Your task to perform on an android device: toggle priority inbox in the gmail app Image 0: 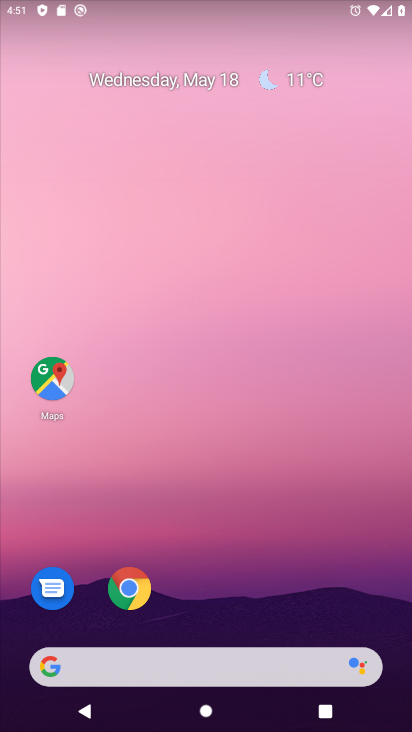
Step 0: drag from (264, 421) to (345, 62)
Your task to perform on an android device: toggle priority inbox in the gmail app Image 1: 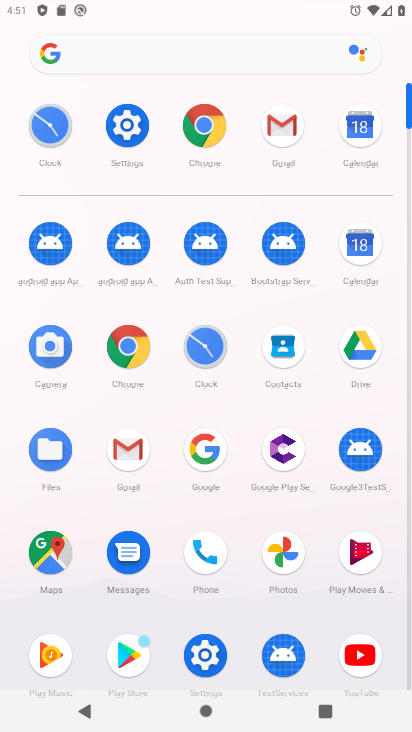
Step 1: click (286, 131)
Your task to perform on an android device: toggle priority inbox in the gmail app Image 2: 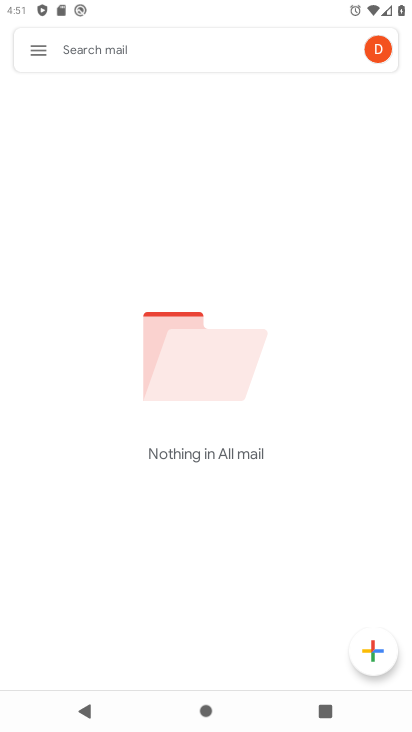
Step 2: click (34, 54)
Your task to perform on an android device: toggle priority inbox in the gmail app Image 3: 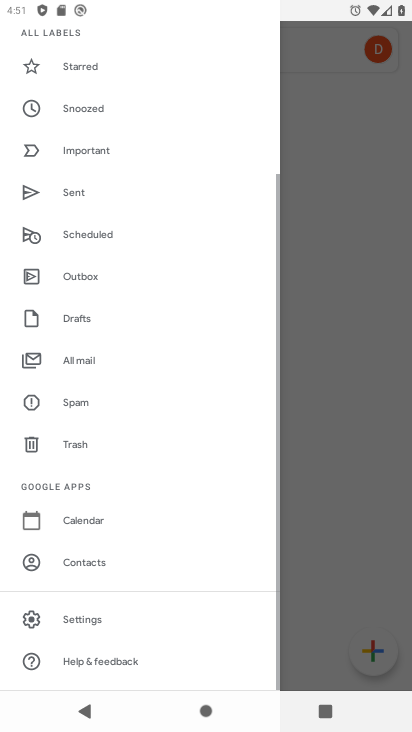
Step 3: click (100, 624)
Your task to perform on an android device: toggle priority inbox in the gmail app Image 4: 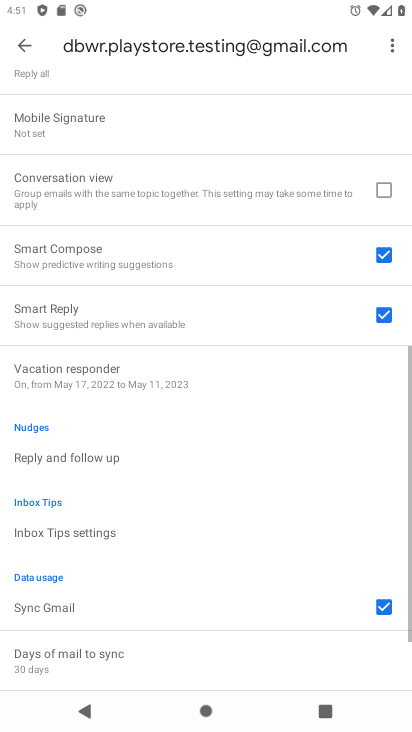
Step 4: drag from (204, 117) to (213, 628)
Your task to perform on an android device: toggle priority inbox in the gmail app Image 5: 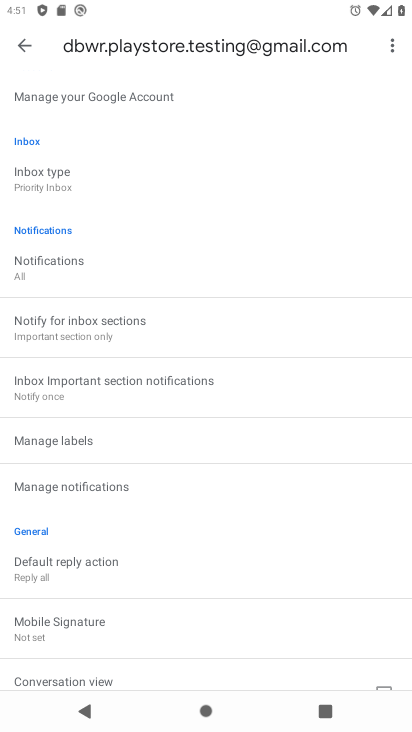
Step 5: drag from (197, 178) to (222, 478)
Your task to perform on an android device: toggle priority inbox in the gmail app Image 6: 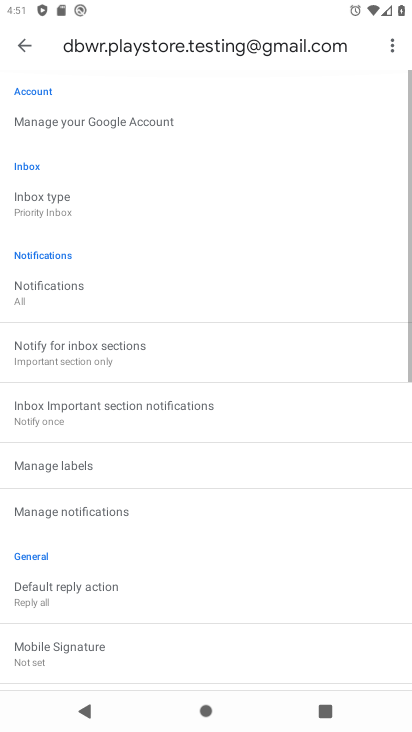
Step 6: click (58, 194)
Your task to perform on an android device: toggle priority inbox in the gmail app Image 7: 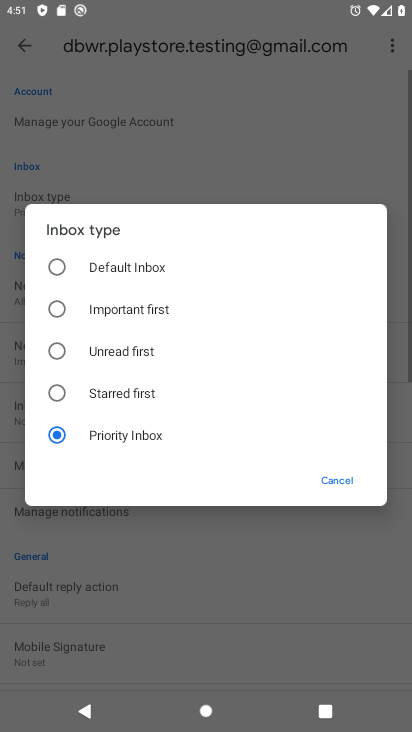
Step 7: click (135, 387)
Your task to perform on an android device: toggle priority inbox in the gmail app Image 8: 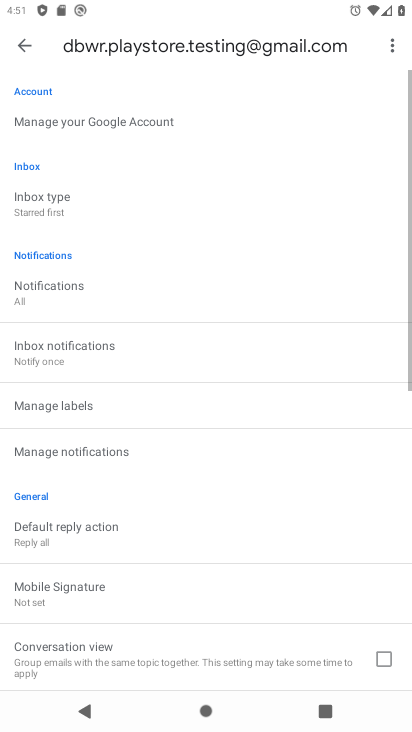
Step 8: task complete